Your task to perform on an android device: Go to display settings Image 0: 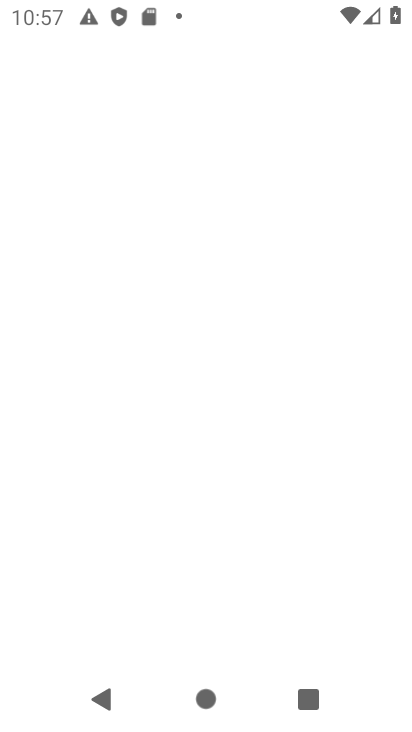
Step 0: press home button
Your task to perform on an android device: Go to display settings Image 1: 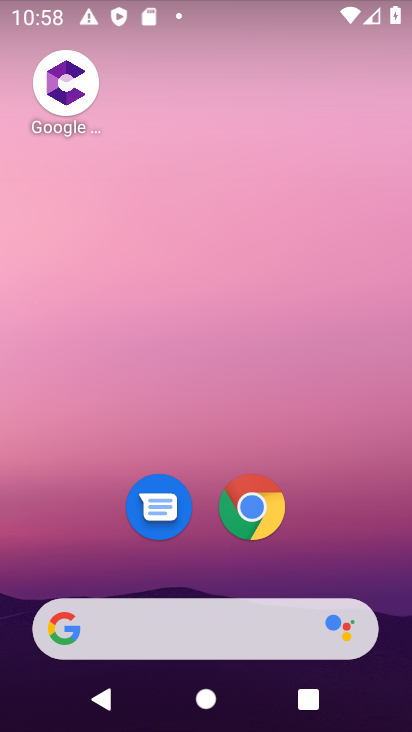
Step 1: drag from (355, 557) to (252, 124)
Your task to perform on an android device: Go to display settings Image 2: 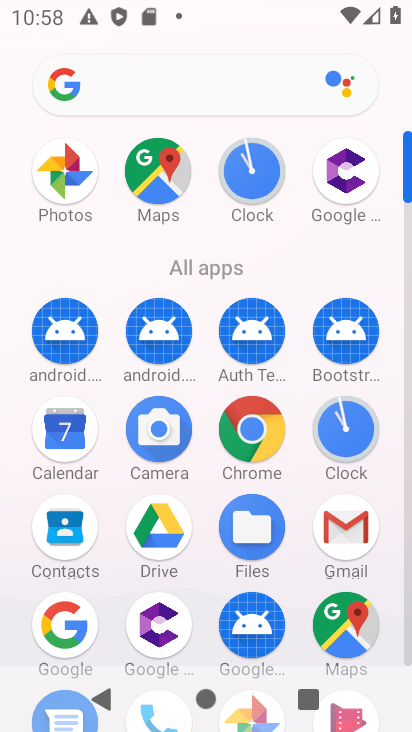
Step 2: drag from (228, 280) to (232, 26)
Your task to perform on an android device: Go to display settings Image 3: 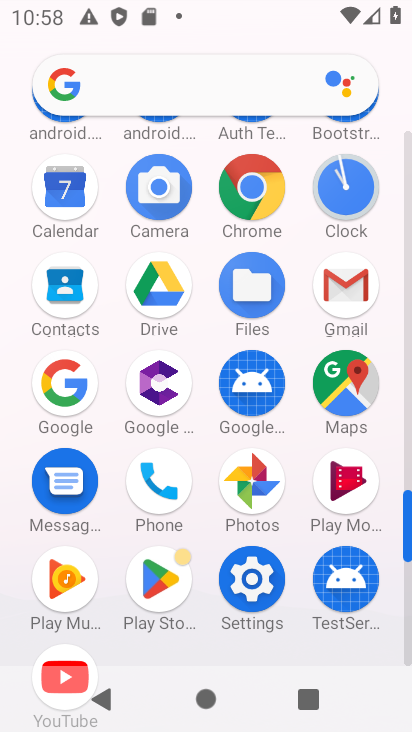
Step 3: click (255, 585)
Your task to perform on an android device: Go to display settings Image 4: 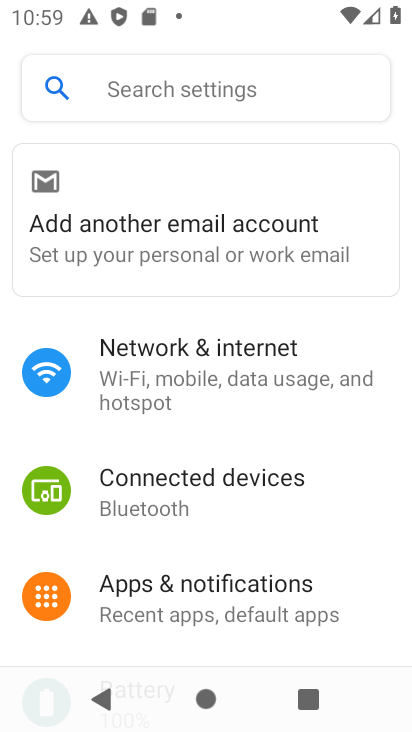
Step 4: drag from (296, 547) to (216, 222)
Your task to perform on an android device: Go to display settings Image 5: 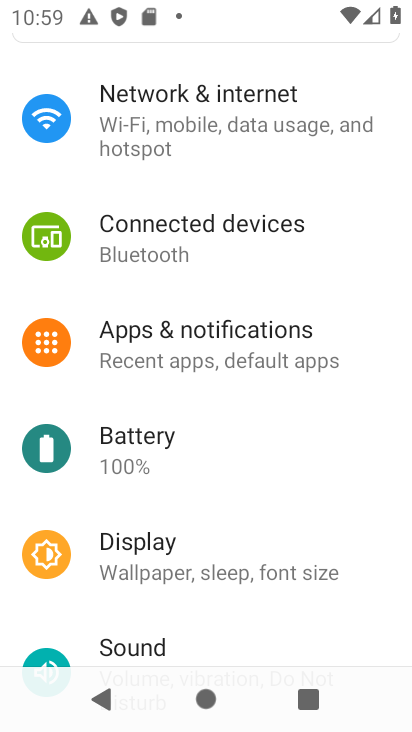
Step 5: click (197, 566)
Your task to perform on an android device: Go to display settings Image 6: 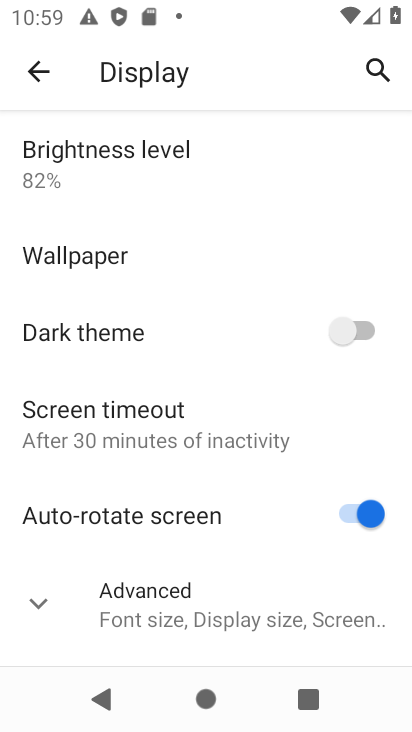
Step 6: task complete